Your task to perform on an android device: turn on the 24-hour format for clock Image 0: 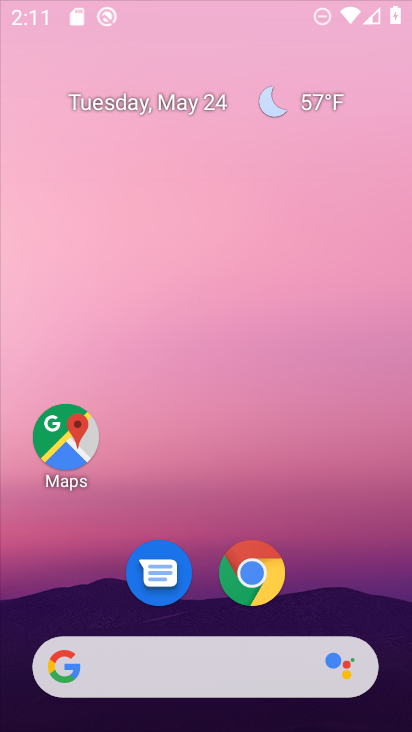
Step 0: drag from (356, 616) to (308, 223)
Your task to perform on an android device: turn on the 24-hour format for clock Image 1: 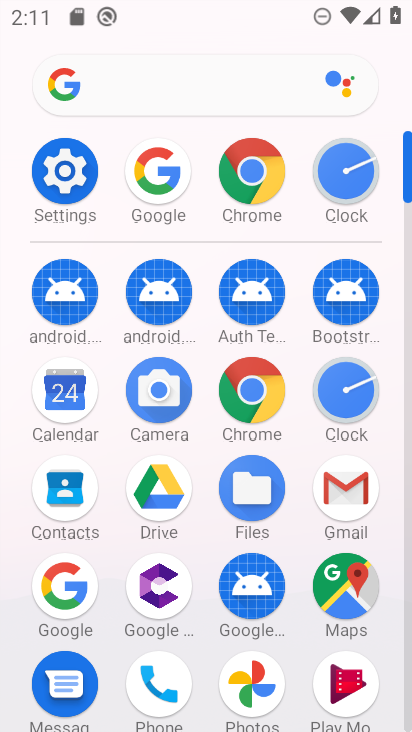
Step 1: click (351, 404)
Your task to perform on an android device: turn on the 24-hour format for clock Image 2: 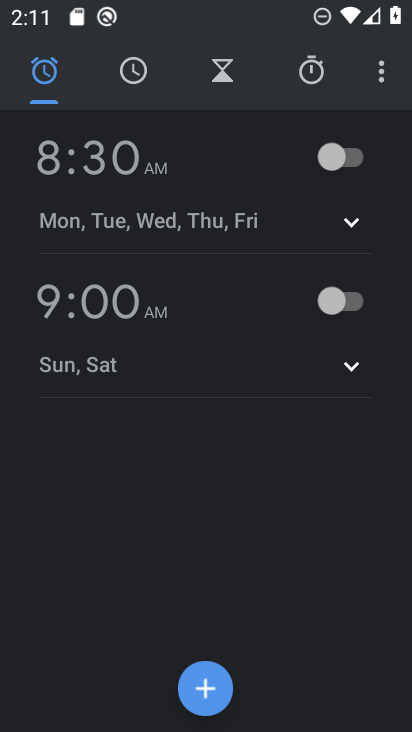
Step 2: click (378, 81)
Your task to perform on an android device: turn on the 24-hour format for clock Image 3: 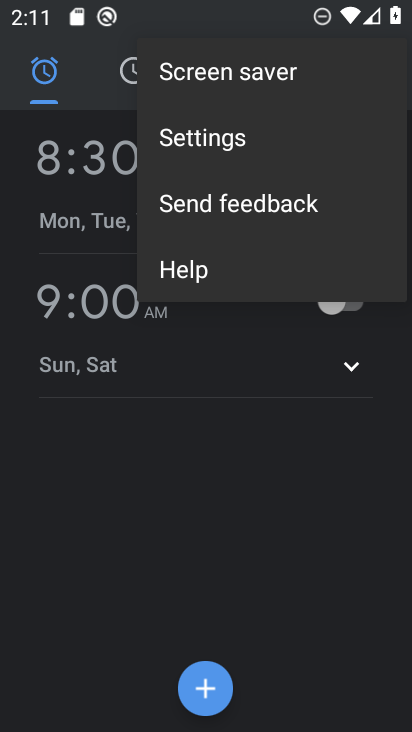
Step 3: click (253, 131)
Your task to perform on an android device: turn on the 24-hour format for clock Image 4: 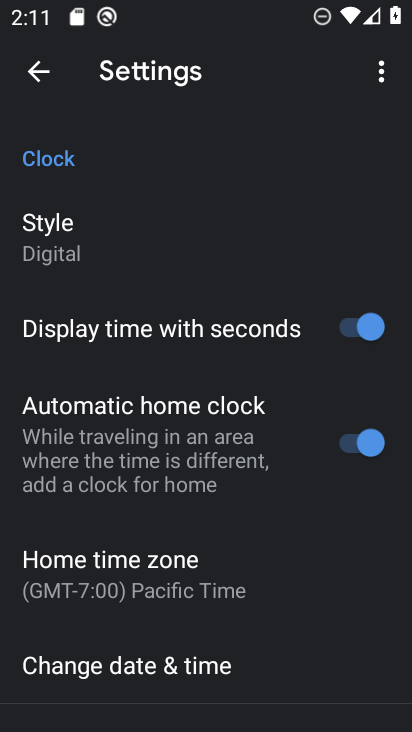
Step 4: drag from (239, 565) to (225, 277)
Your task to perform on an android device: turn on the 24-hour format for clock Image 5: 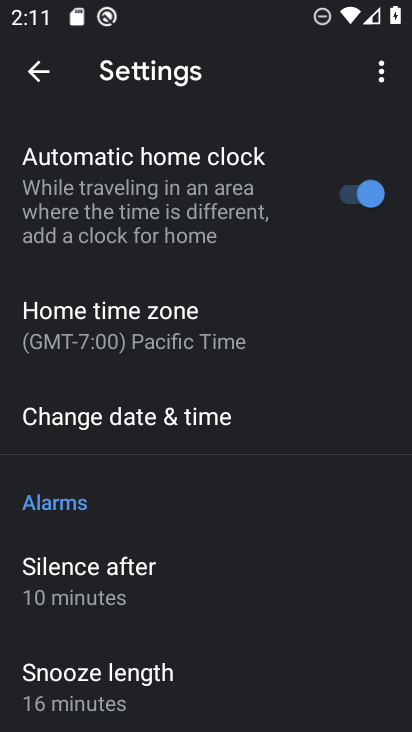
Step 5: click (203, 419)
Your task to perform on an android device: turn on the 24-hour format for clock Image 6: 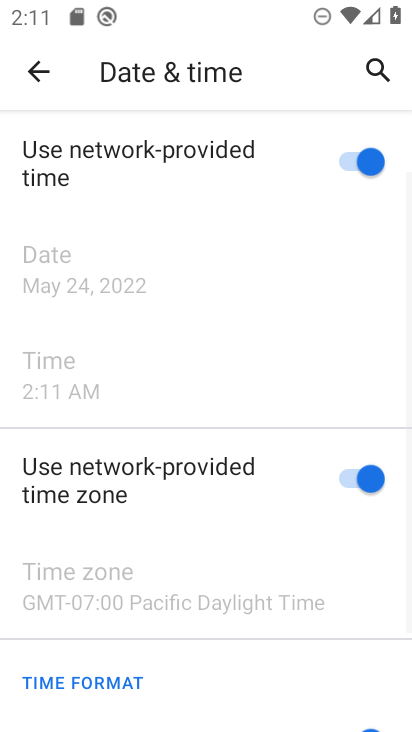
Step 6: drag from (193, 605) to (196, 248)
Your task to perform on an android device: turn on the 24-hour format for clock Image 7: 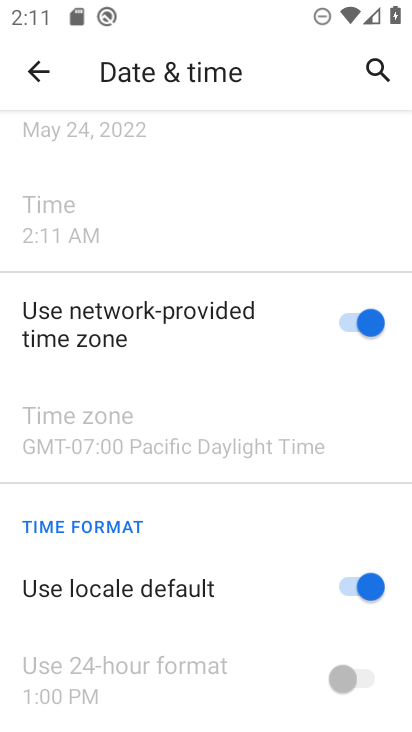
Step 7: click (351, 608)
Your task to perform on an android device: turn on the 24-hour format for clock Image 8: 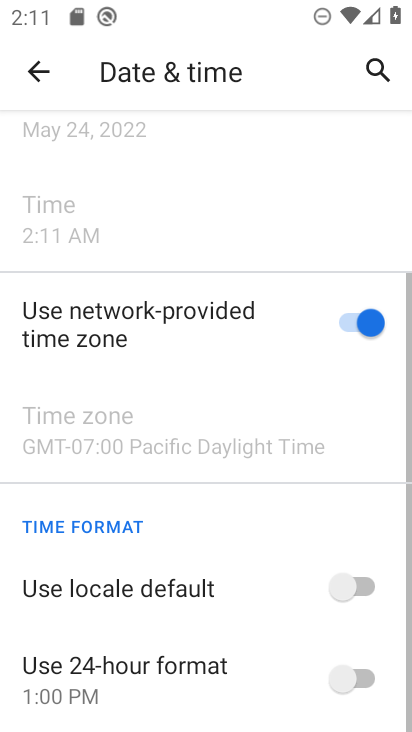
Step 8: click (363, 675)
Your task to perform on an android device: turn on the 24-hour format for clock Image 9: 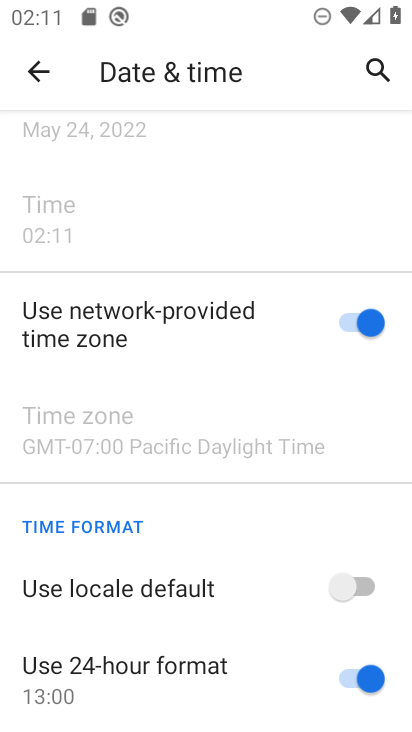
Step 9: task complete